Your task to perform on an android device: Search for vegetarian restaurants on Maps Image 0: 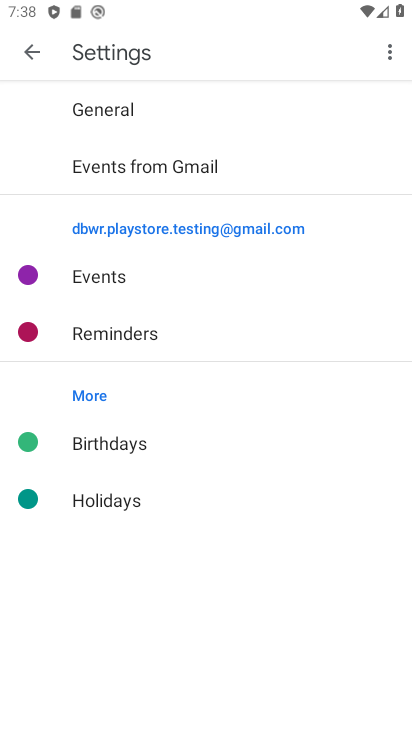
Step 0: press home button
Your task to perform on an android device: Search for vegetarian restaurants on Maps Image 1: 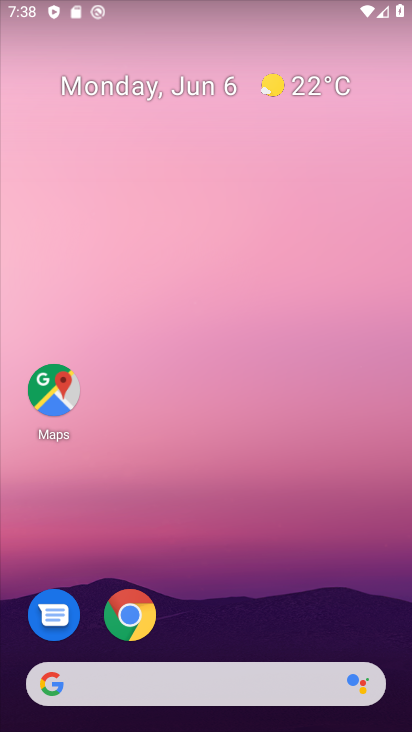
Step 1: click (53, 388)
Your task to perform on an android device: Search for vegetarian restaurants on Maps Image 2: 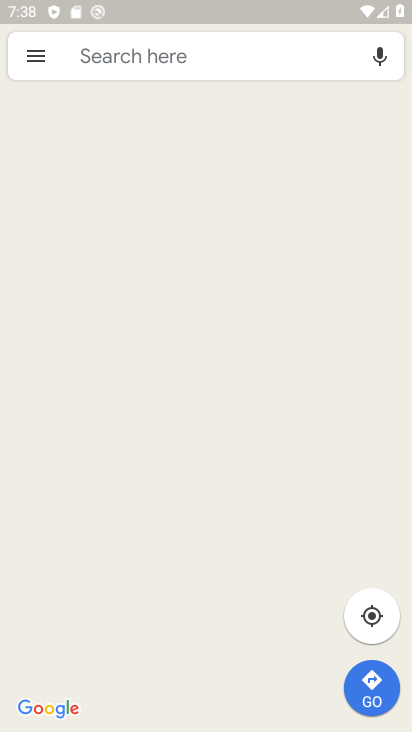
Step 2: click (98, 53)
Your task to perform on an android device: Search for vegetarian restaurants on Maps Image 3: 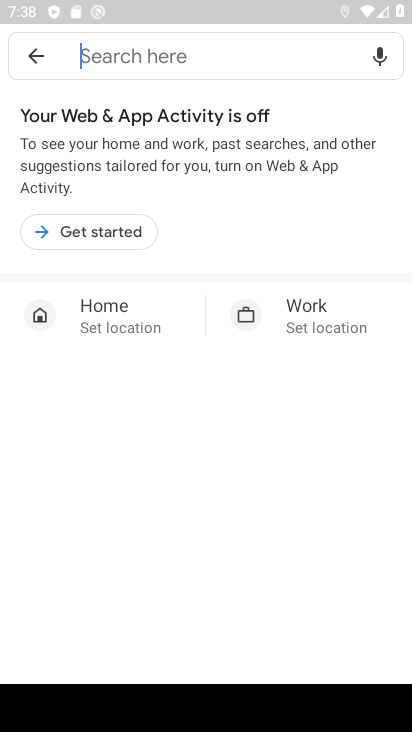
Step 3: type "vegetarian restaurants"
Your task to perform on an android device: Search for vegetarian restaurants on Maps Image 4: 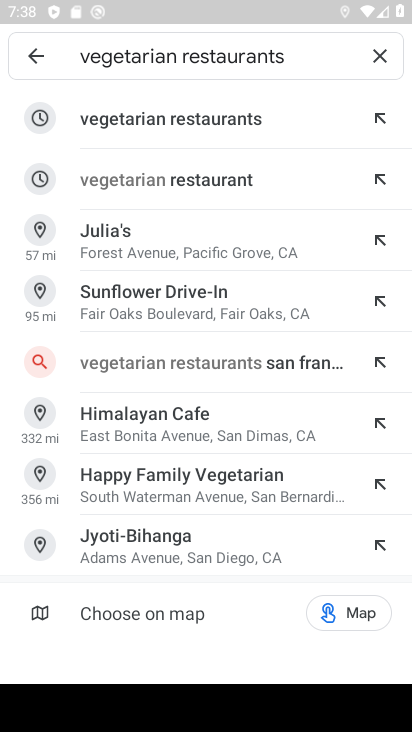
Step 4: click (206, 114)
Your task to perform on an android device: Search for vegetarian restaurants on Maps Image 5: 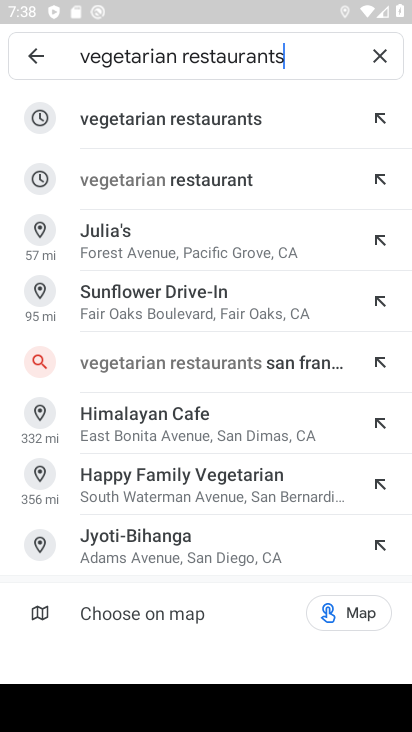
Step 5: click (206, 114)
Your task to perform on an android device: Search for vegetarian restaurants on Maps Image 6: 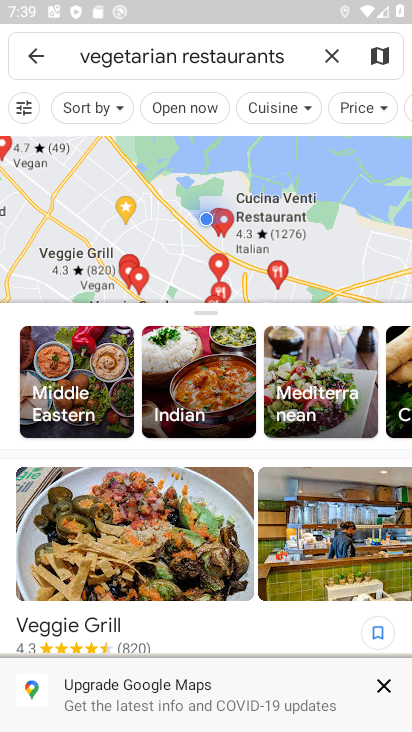
Step 6: task complete